Your task to perform on an android device: Open Reddit.com Image 0: 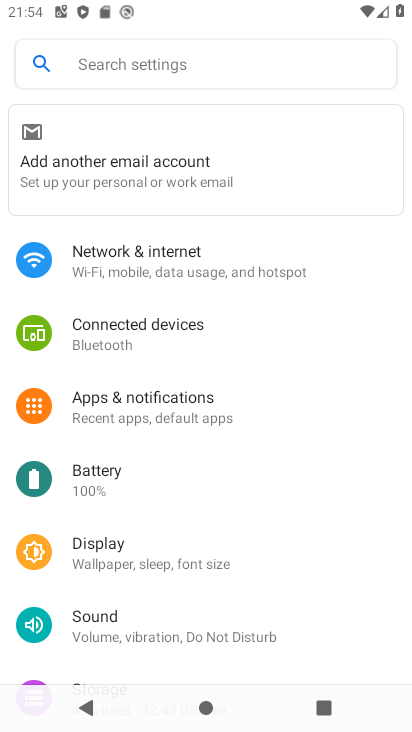
Step 0: press home button
Your task to perform on an android device: Open Reddit.com Image 1: 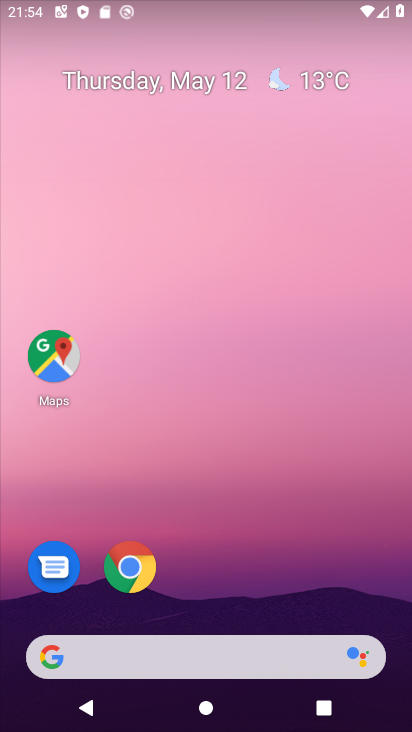
Step 1: click (127, 561)
Your task to perform on an android device: Open Reddit.com Image 2: 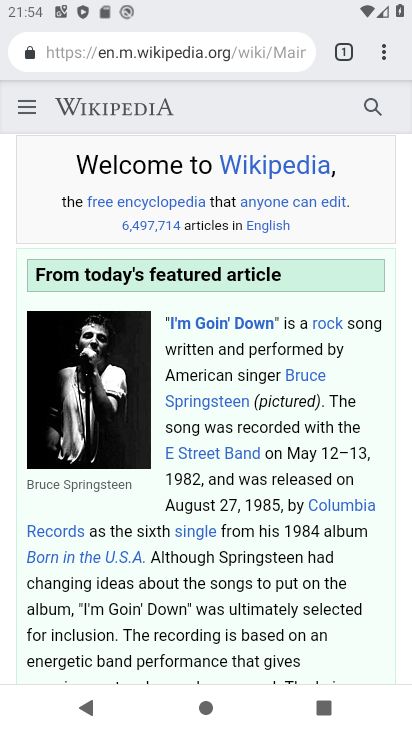
Step 2: click (340, 48)
Your task to perform on an android device: Open Reddit.com Image 3: 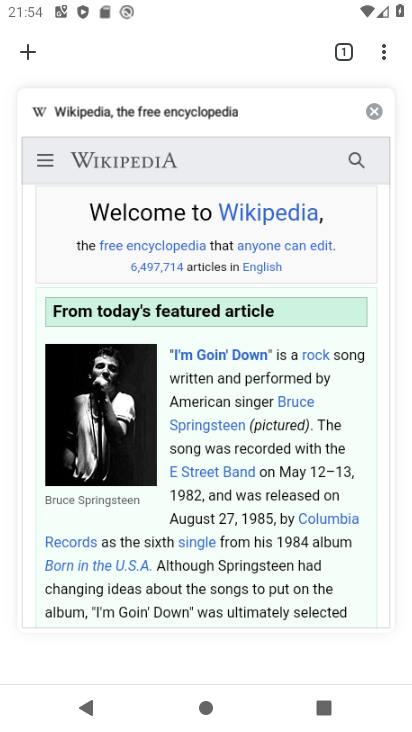
Step 3: click (372, 105)
Your task to perform on an android device: Open Reddit.com Image 4: 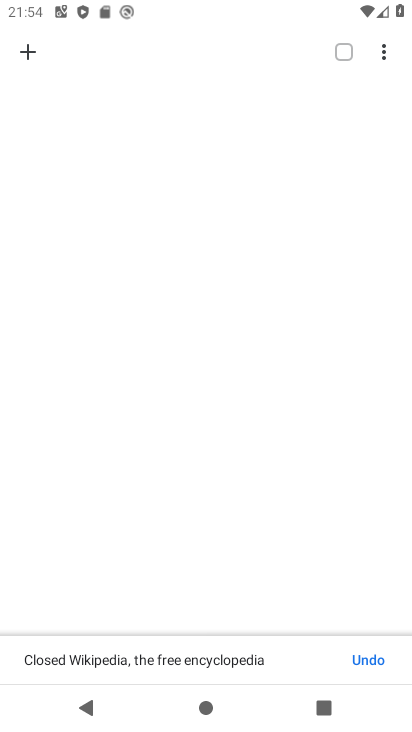
Step 4: click (29, 53)
Your task to perform on an android device: Open Reddit.com Image 5: 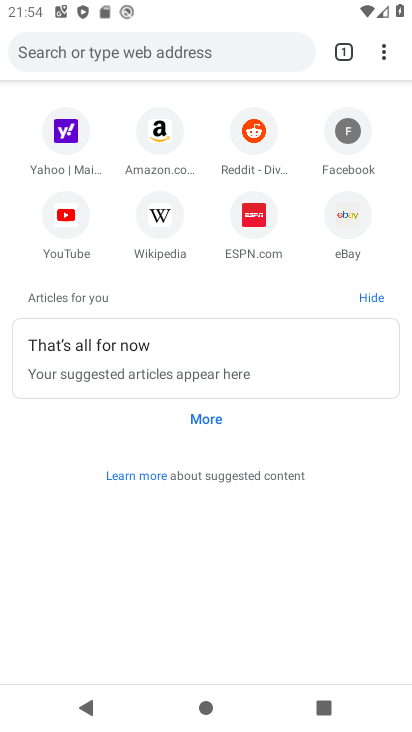
Step 5: click (250, 130)
Your task to perform on an android device: Open Reddit.com Image 6: 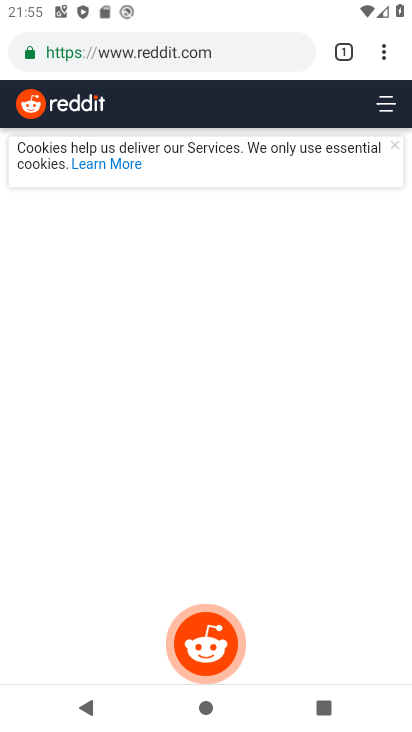
Step 6: click (394, 142)
Your task to perform on an android device: Open Reddit.com Image 7: 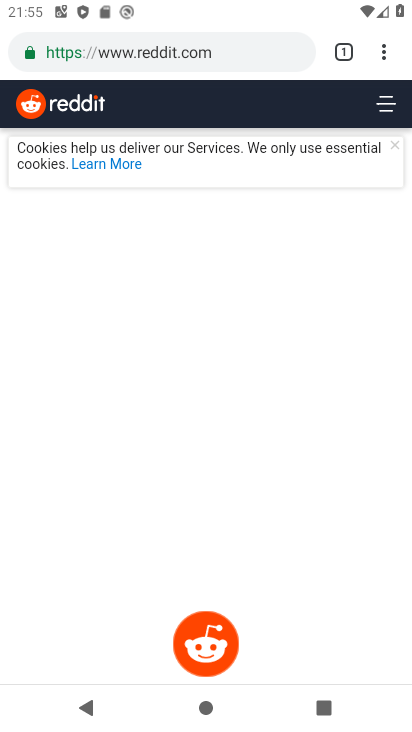
Step 7: click (381, 110)
Your task to perform on an android device: Open Reddit.com Image 8: 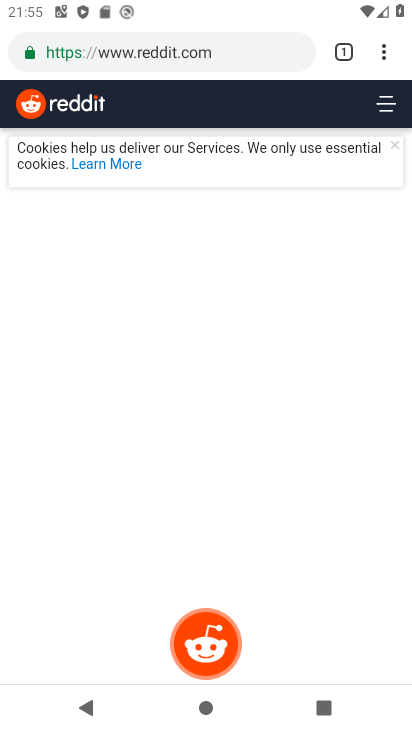
Step 8: task complete